Your task to perform on an android device: Go to Wikipedia Image 0: 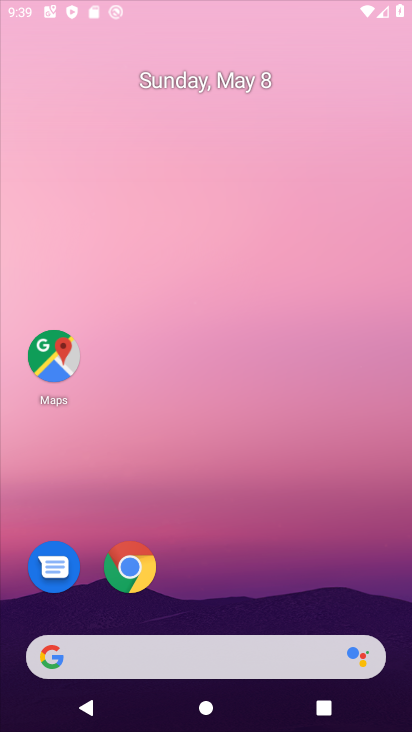
Step 0: drag from (302, 622) to (169, 89)
Your task to perform on an android device: Go to Wikipedia Image 1: 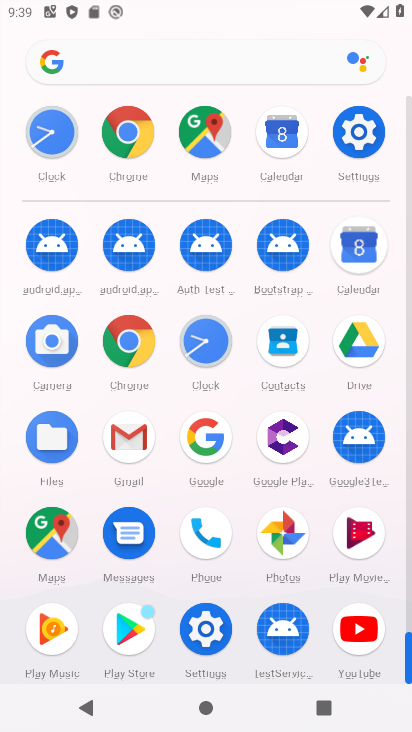
Step 1: click (118, 136)
Your task to perform on an android device: Go to Wikipedia Image 2: 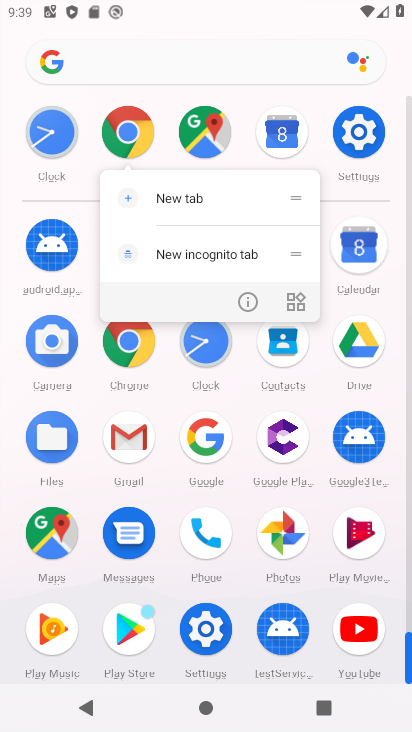
Step 2: click (128, 135)
Your task to perform on an android device: Go to Wikipedia Image 3: 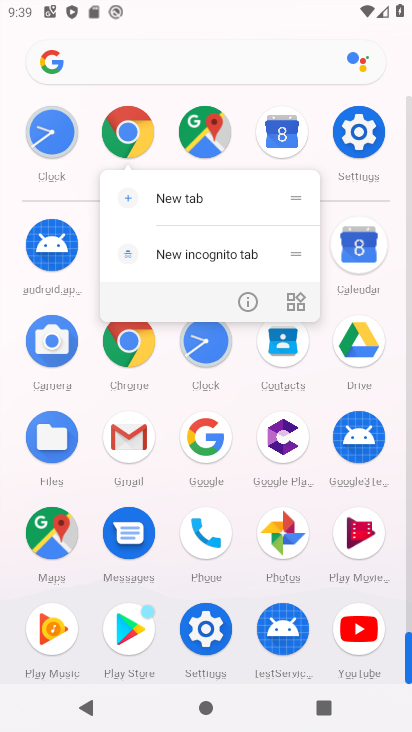
Step 3: click (140, 149)
Your task to perform on an android device: Go to Wikipedia Image 4: 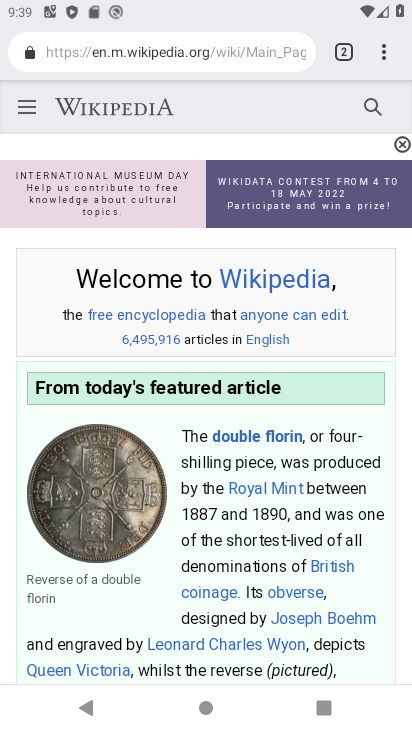
Step 4: task complete